Your task to perform on an android device: delete location history Image 0: 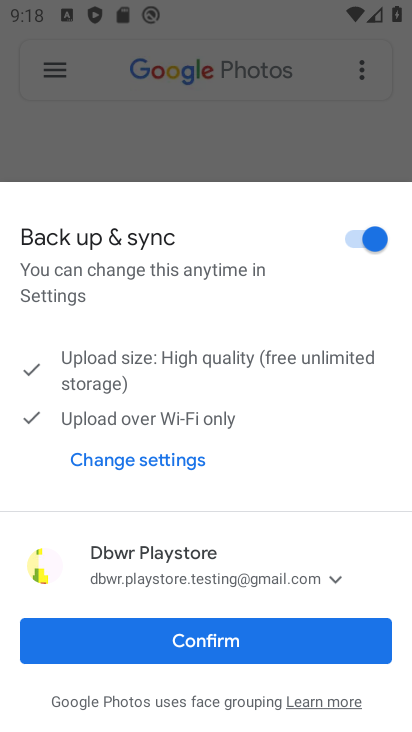
Step 0: press home button
Your task to perform on an android device: delete location history Image 1: 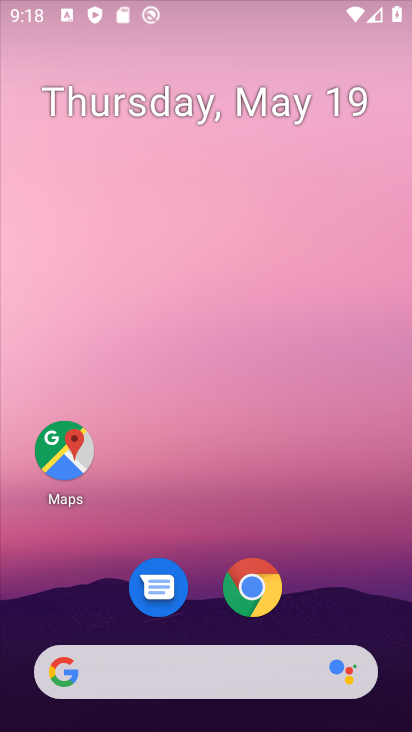
Step 1: drag from (355, 583) to (396, 39)
Your task to perform on an android device: delete location history Image 2: 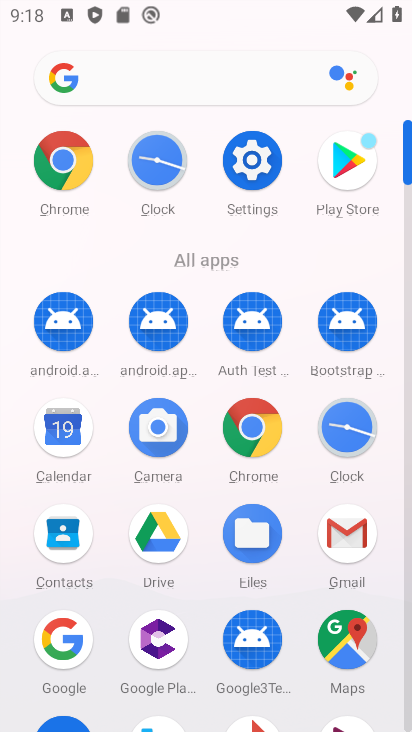
Step 2: click (343, 638)
Your task to perform on an android device: delete location history Image 3: 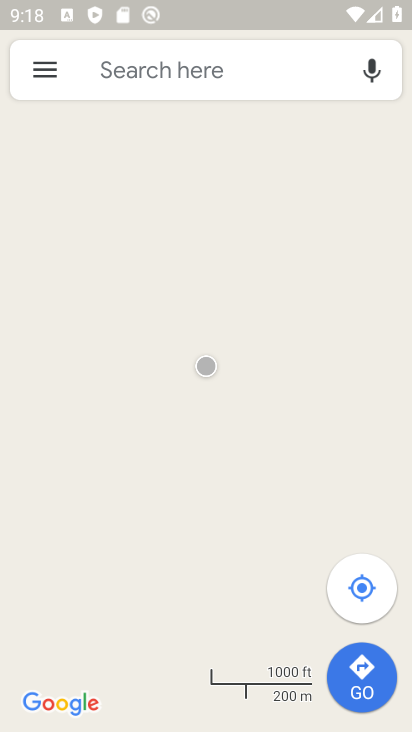
Step 3: click (45, 83)
Your task to perform on an android device: delete location history Image 4: 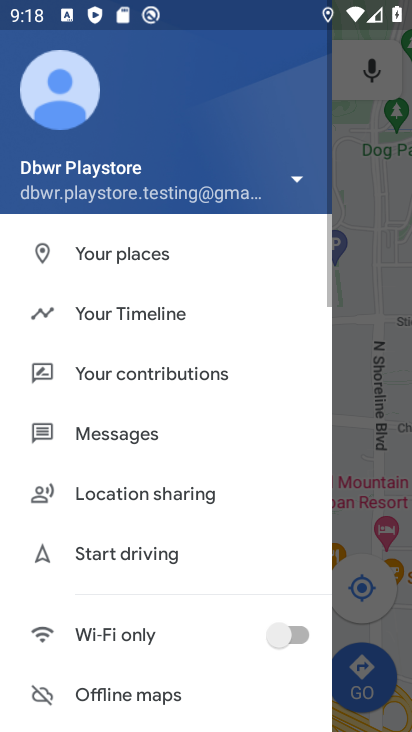
Step 4: click (45, 84)
Your task to perform on an android device: delete location history Image 5: 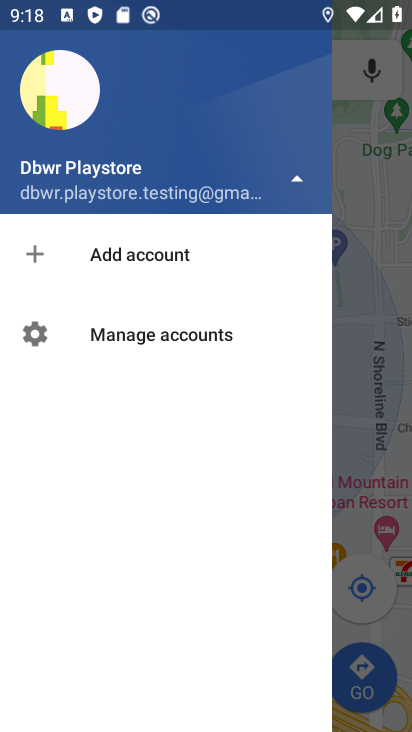
Step 5: press back button
Your task to perform on an android device: delete location history Image 6: 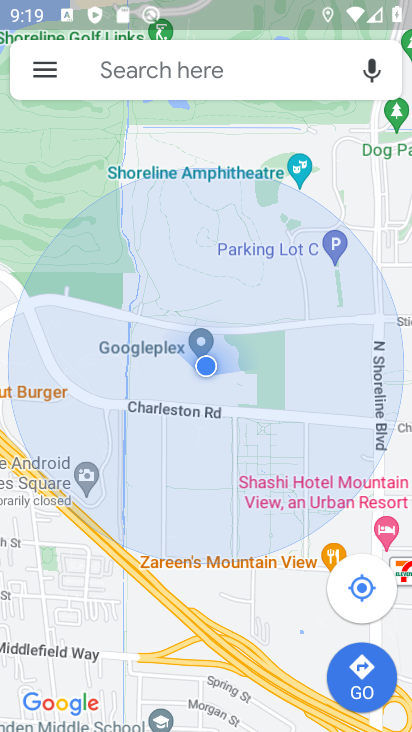
Step 6: click (21, 63)
Your task to perform on an android device: delete location history Image 7: 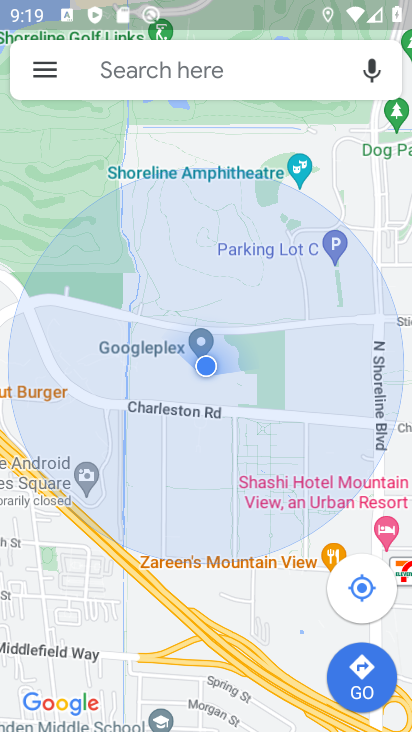
Step 7: click (40, 71)
Your task to perform on an android device: delete location history Image 8: 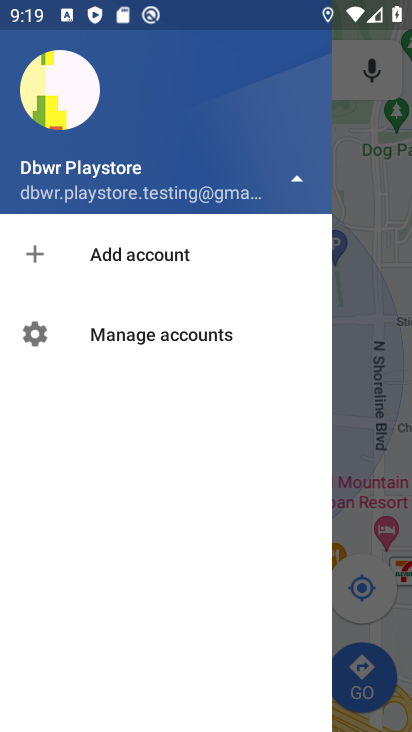
Step 8: click (53, 99)
Your task to perform on an android device: delete location history Image 9: 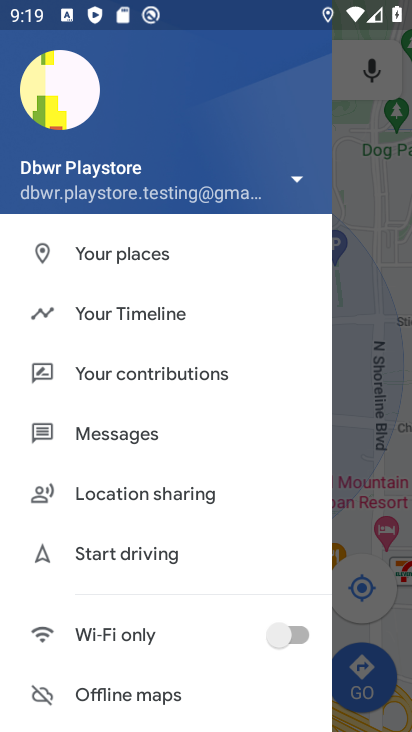
Step 9: click (94, 310)
Your task to perform on an android device: delete location history Image 10: 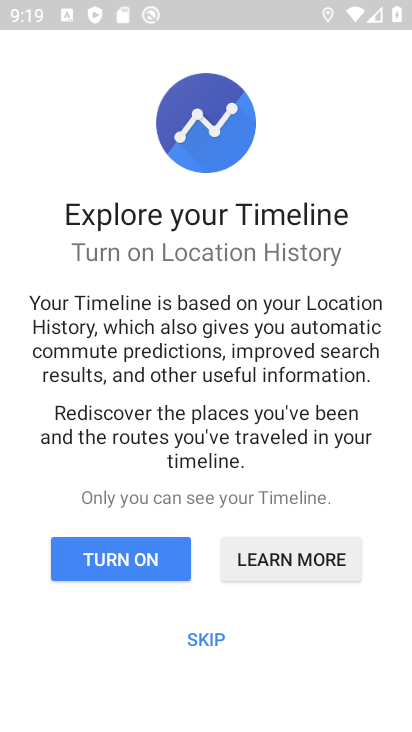
Step 10: click (223, 632)
Your task to perform on an android device: delete location history Image 11: 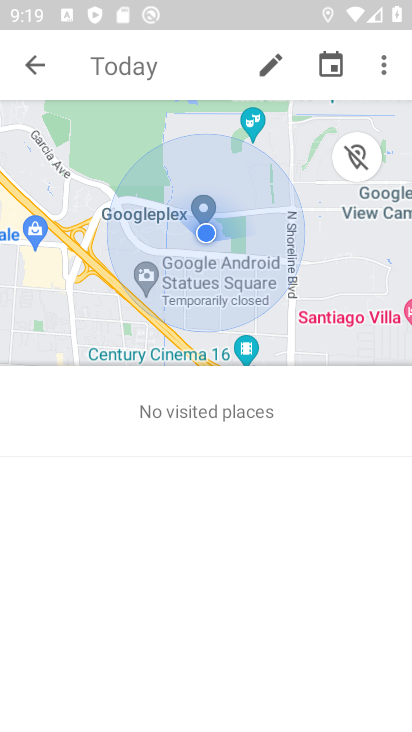
Step 11: click (395, 63)
Your task to perform on an android device: delete location history Image 12: 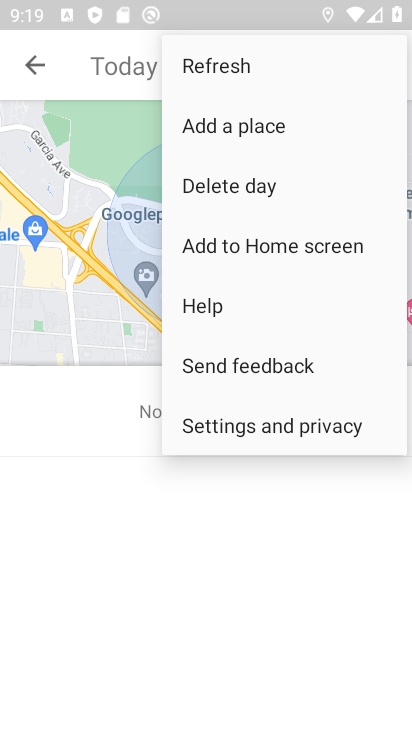
Step 12: click (310, 441)
Your task to perform on an android device: delete location history Image 13: 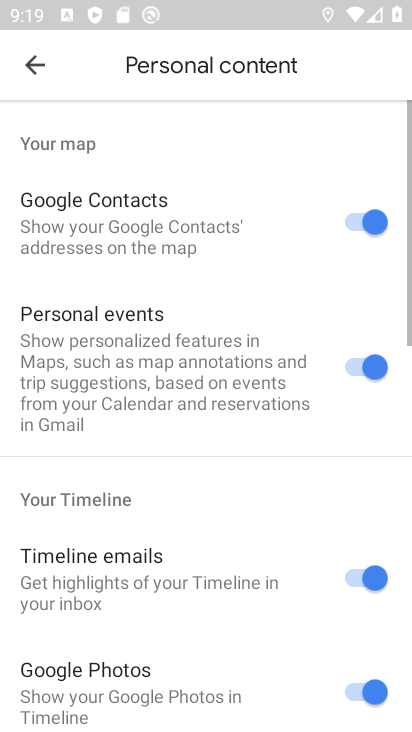
Step 13: drag from (184, 570) to (228, 119)
Your task to perform on an android device: delete location history Image 14: 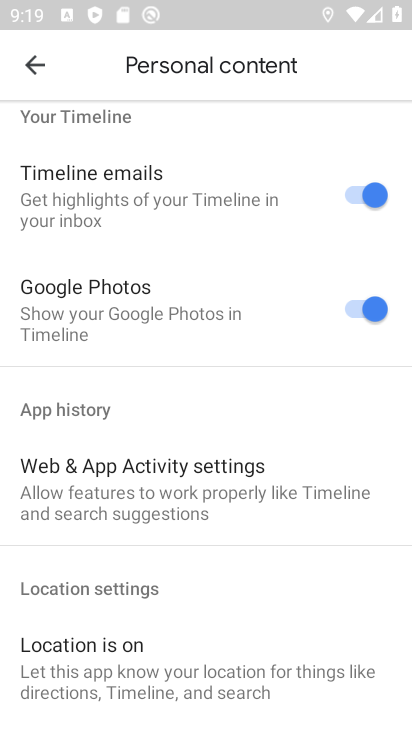
Step 14: drag from (183, 497) to (240, 79)
Your task to perform on an android device: delete location history Image 15: 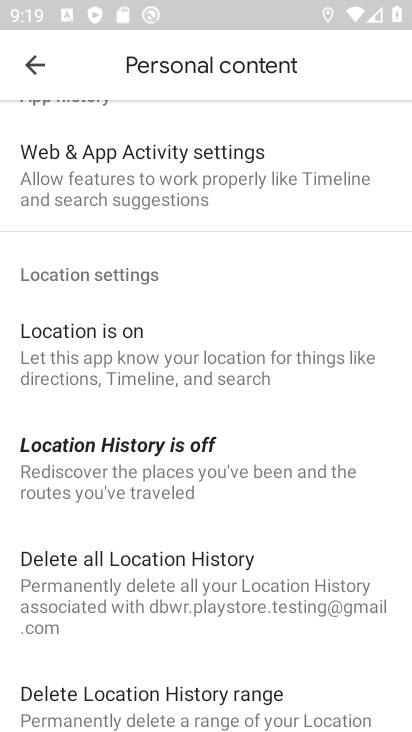
Step 15: drag from (146, 603) to (166, 224)
Your task to perform on an android device: delete location history Image 16: 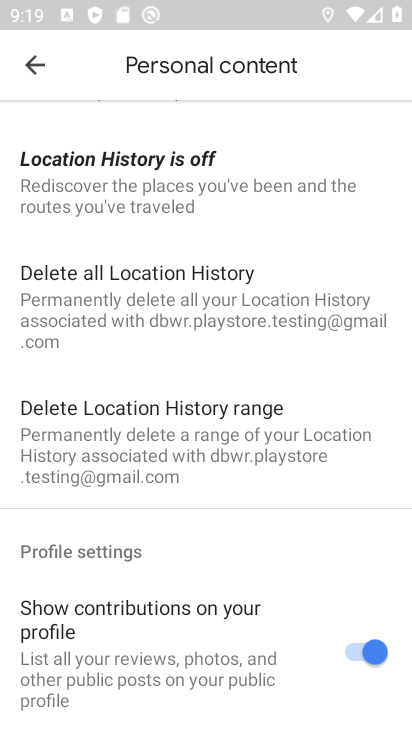
Step 16: click (162, 294)
Your task to perform on an android device: delete location history Image 17: 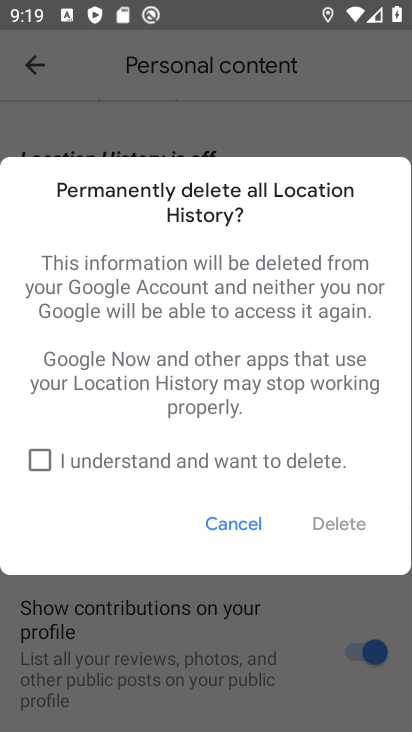
Step 17: click (45, 467)
Your task to perform on an android device: delete location history Image 18: 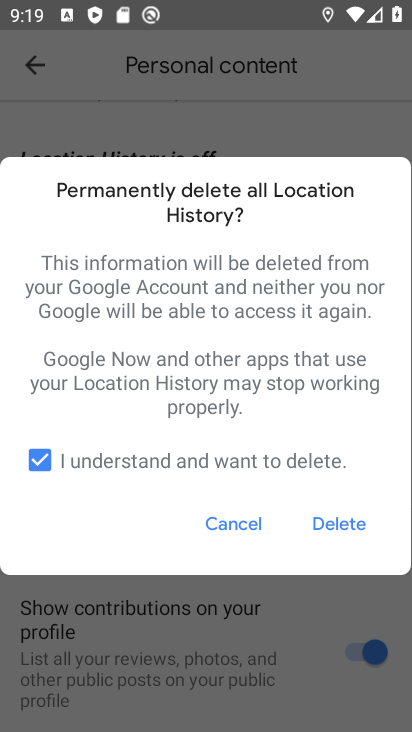
Step 18: click (343, 540)
Your task to perform on an android device: delete location history Image 19: 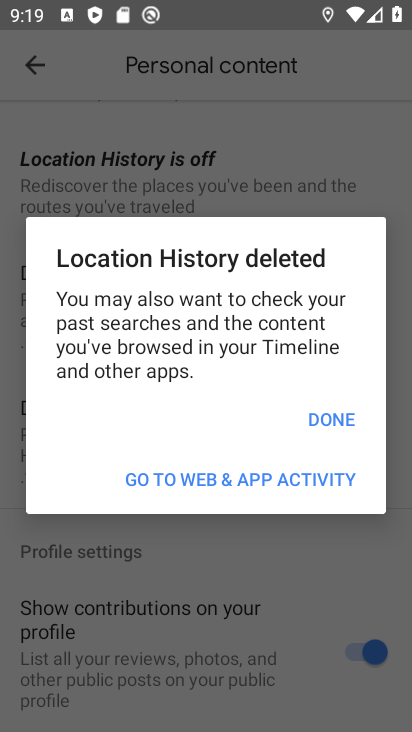
Step 19: click (333, 416)
Your task to perform on an android device: delete location history Image 20: 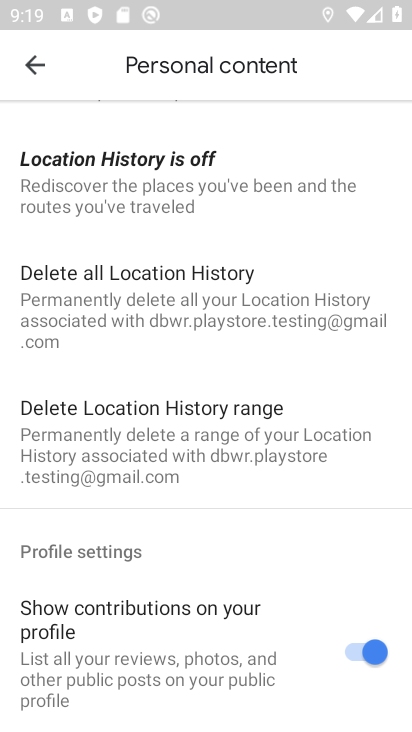
Step 20: task complete